Your task to perform on an android device: toggle airplane mode Image 0: 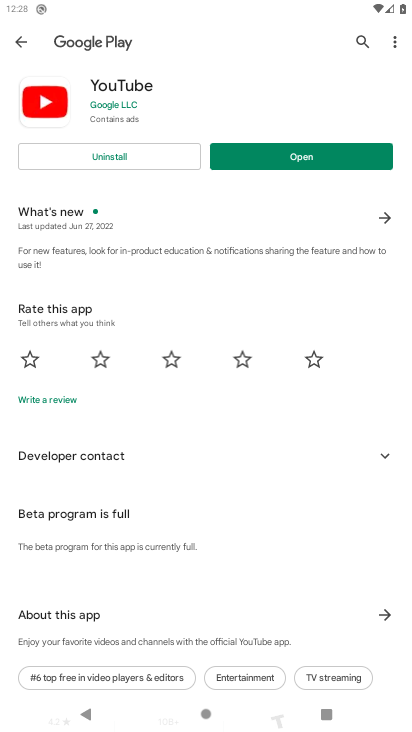
Step 0: press home button
Your task to perform on an android device: toggle airplane mode Image 1: 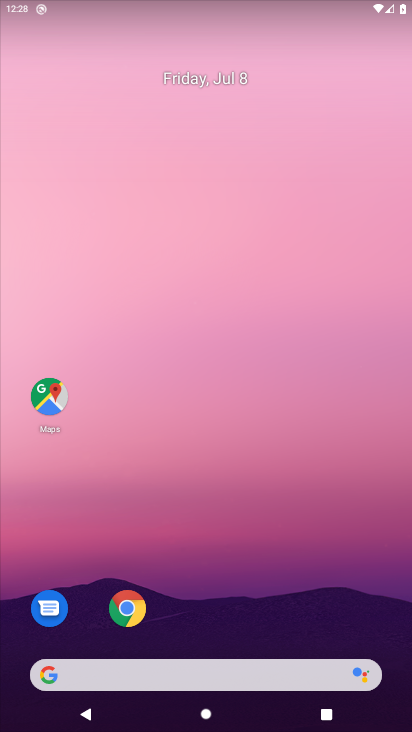
Step 1: drag from (301, 41) to (309, 135)
Your task to perform on an android device: toggle airplane mode Image 2: 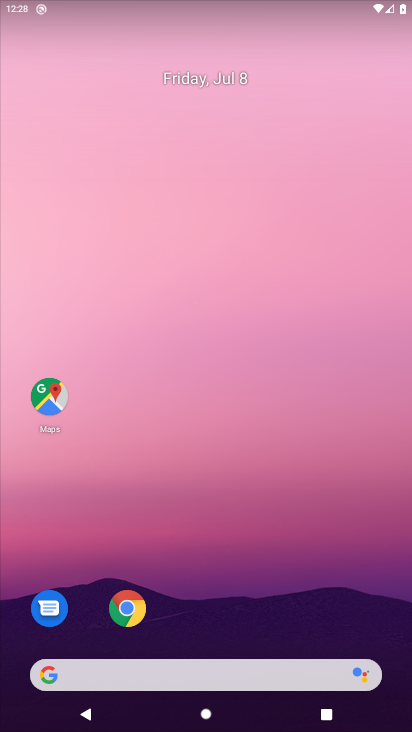
Step 2: drag from (406, 4) to (242, 331)
Your task to perform on an android device: toggle airplane mode Image 3: 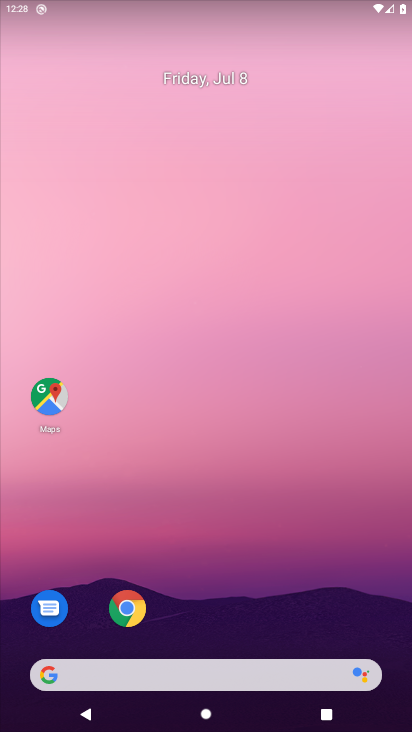
Step 3: drag from (363, 1) to (21, 314)
Your task to perform on an android device: toggle airplane mode Image 4: 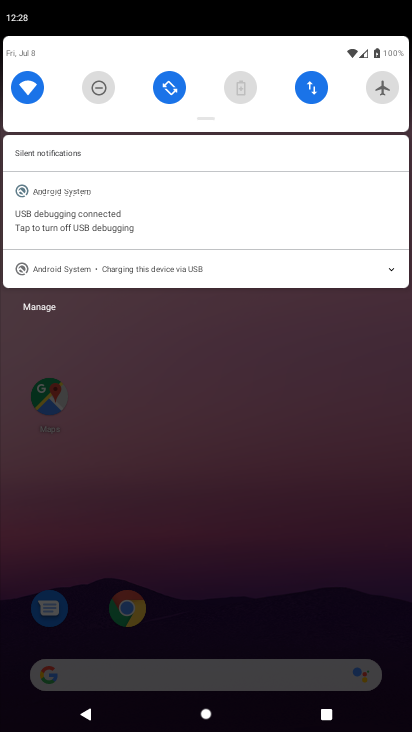
Step 4: click (383, 93)
Your task to perform on an android device: toggle airplane mode Image 5: 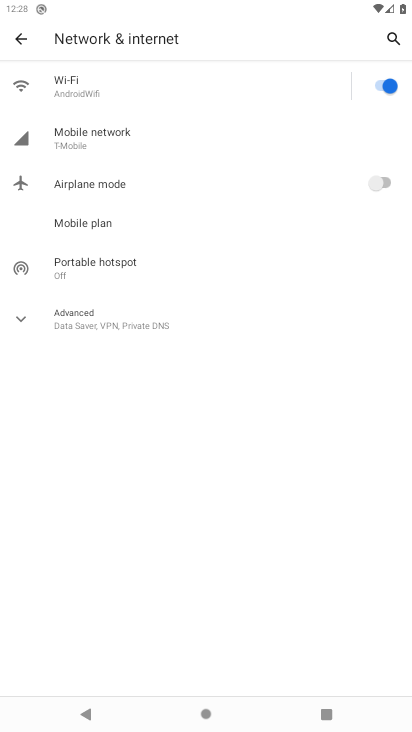
Step 5: click (402, 186)
Your task to perform on an android device: toggle airplane mode Image 6: 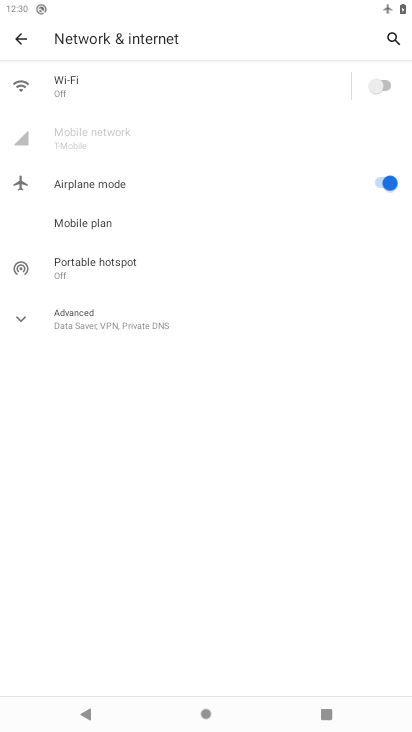
Step 6: task complete